Your task to perform on an android device: Open ESPN.com Image 0: 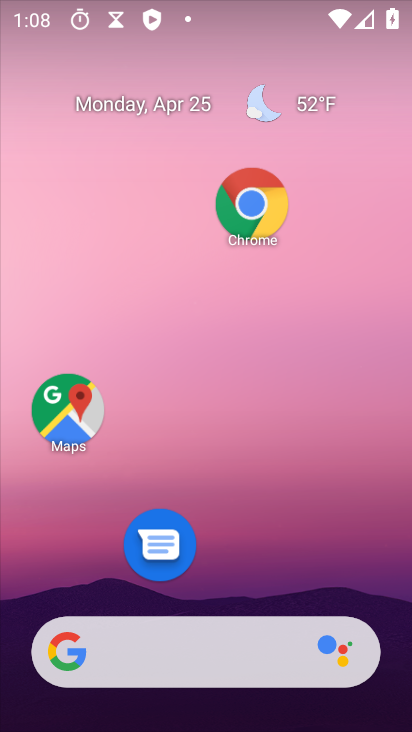
Step 0: press home button
Your task to perform on an android device: Open ESPN.com Image 1: 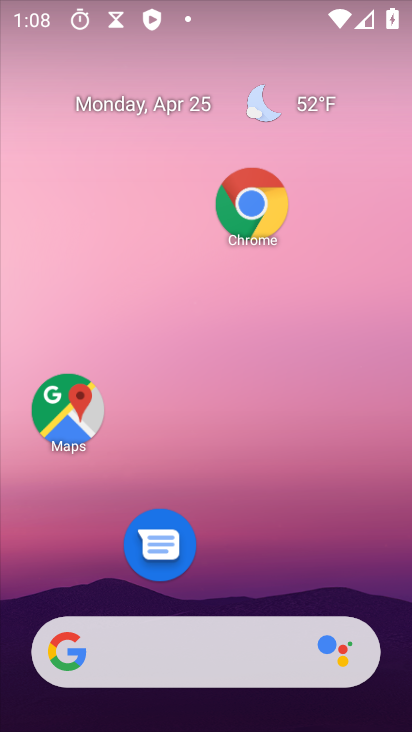
Step 1: drag from (257, 703) to (307, 250)
Your task to perform on an android device: Open ESPN.com Image 2: 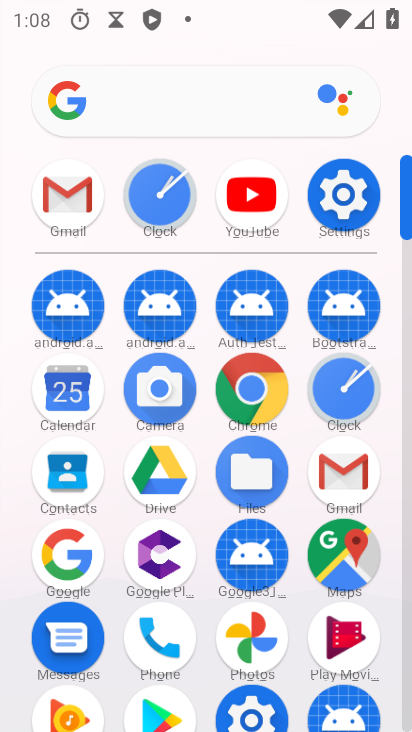
Step 2: click (247, 388)
Your task to perform on an android device: Open ESPN.com Image 3: 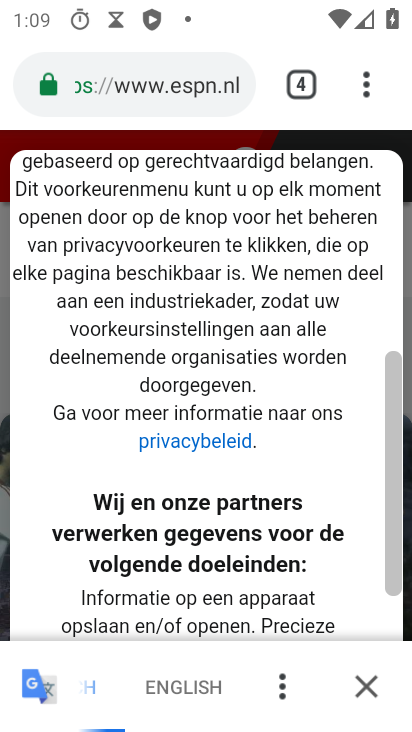
Step 3: task complete